Your task to perform on an android device: open app "Skype" (install if not already installed) Image 0: 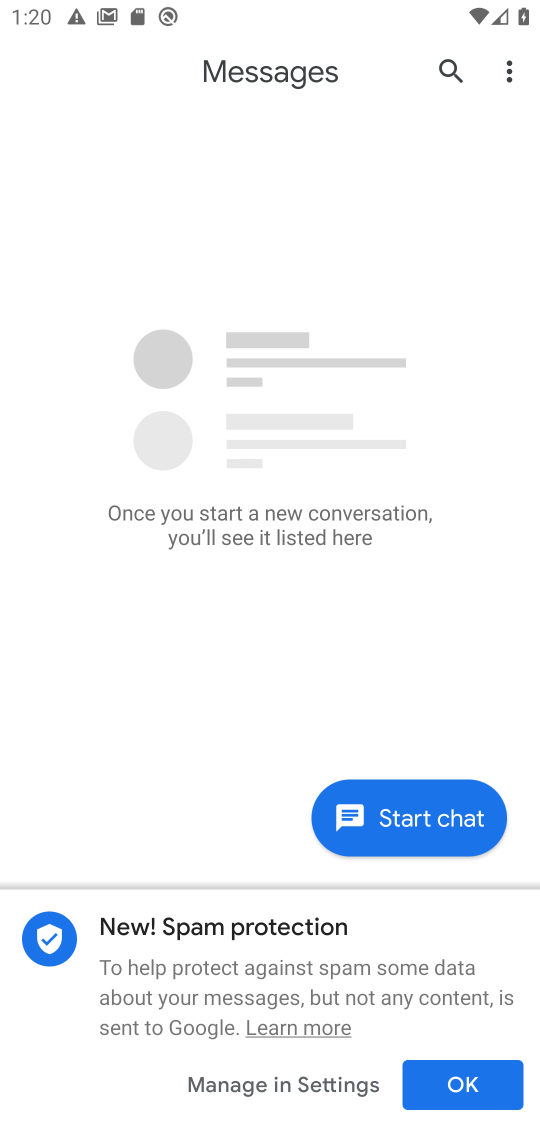
Step 0: press home button
Your task to perform on an android device: open app "Skype" (install if not already installed) Image 1: 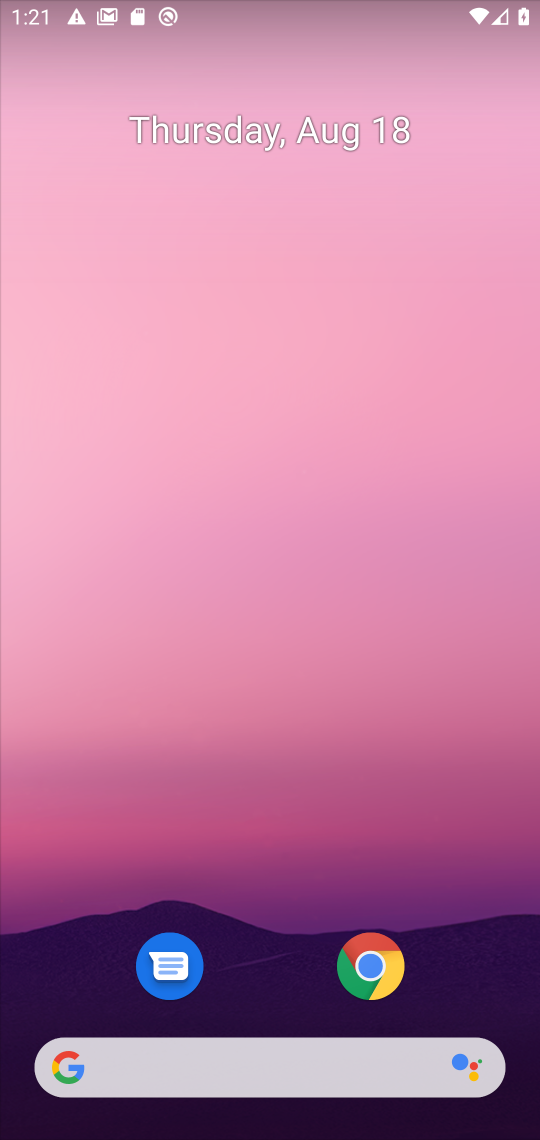
Step 1: drag from (286, 967) to (462, 284)
Your task to perform on an android device: open app "Skype" (install if not already installed) Image 2: 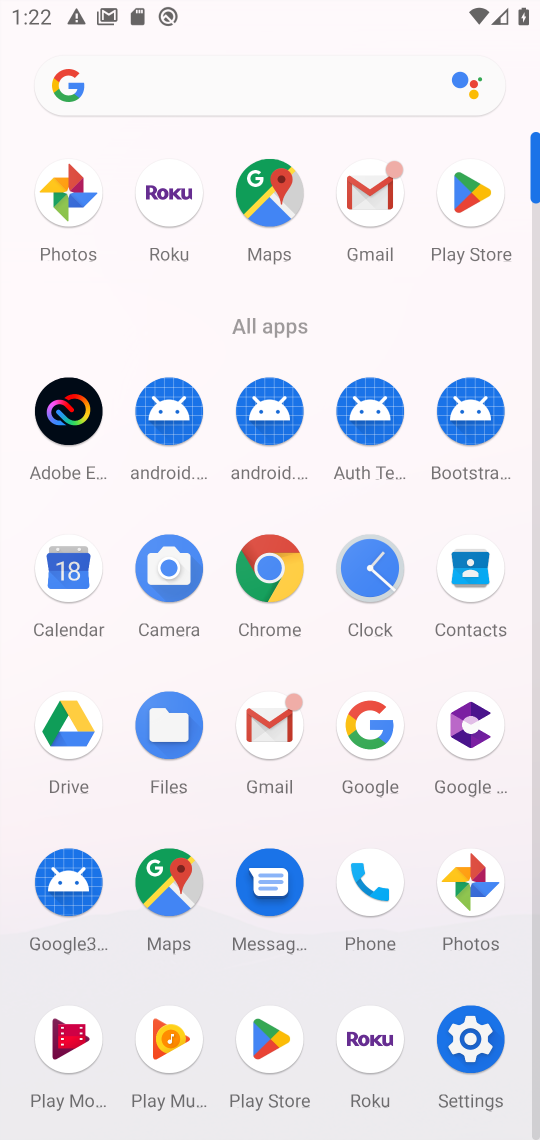
Step 2: click (460, 229)
Your task to perform on an android device: open app "Skype" (install if not already installed) Image 3: 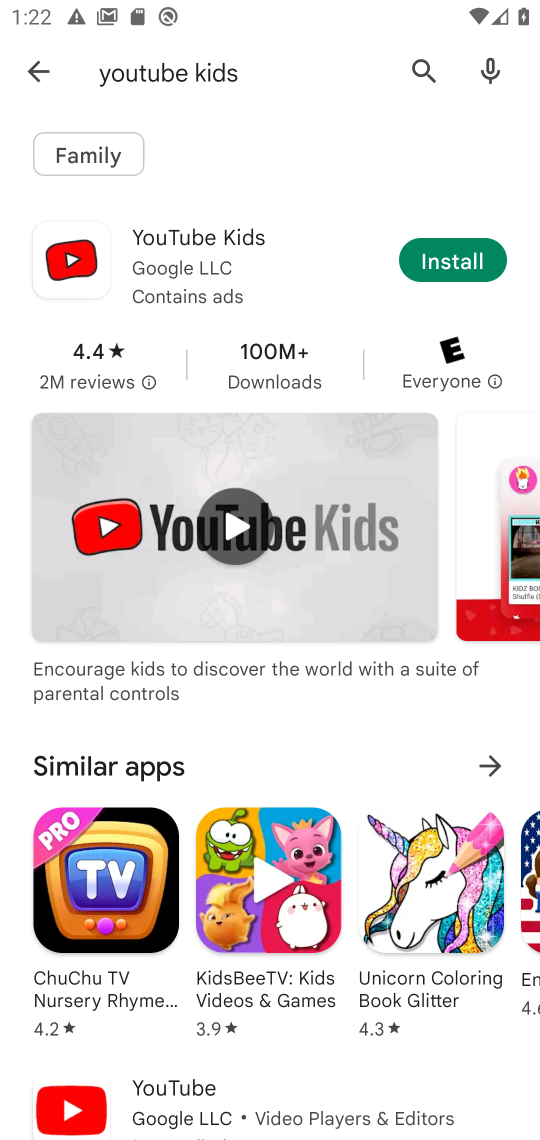
Step 3: click (39, 61)
Your task to perform on an android device: open app "Skype" (install if not already installed) Image 4: 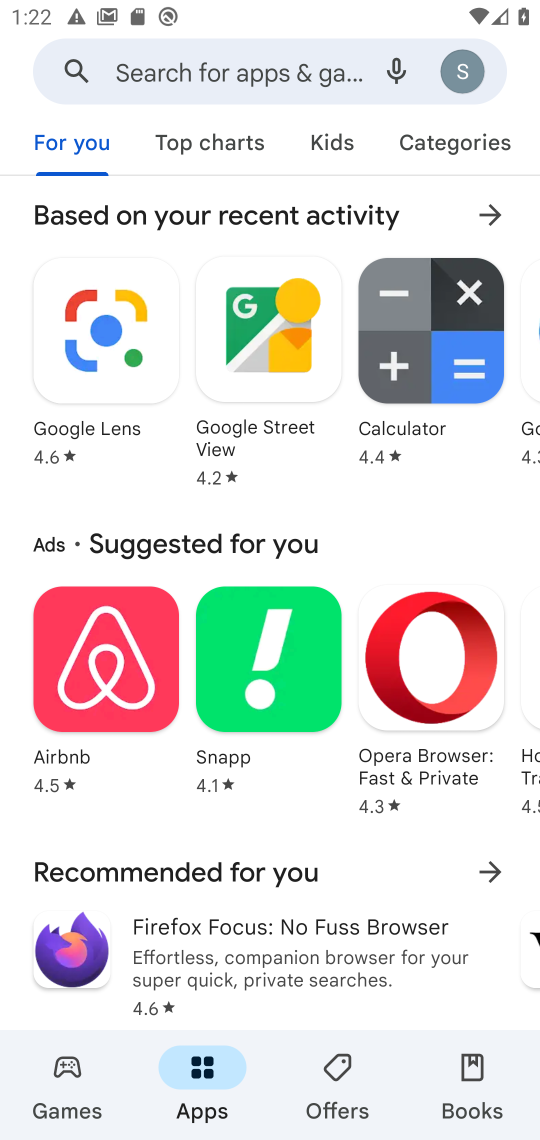
Step 4: click (214, 57)
Your task to perform on an android device: open app "Skype" (install if not already installed) Image 5: 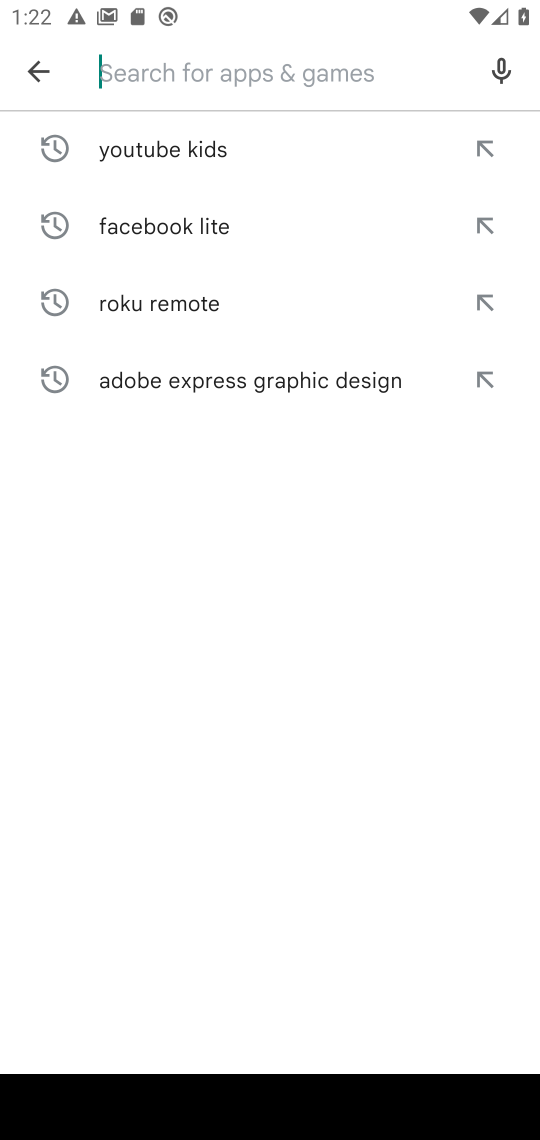
Step 5: type "Skype"
Your task to perform on an android device: open app "Skype" (install if not already installed) Image 6: 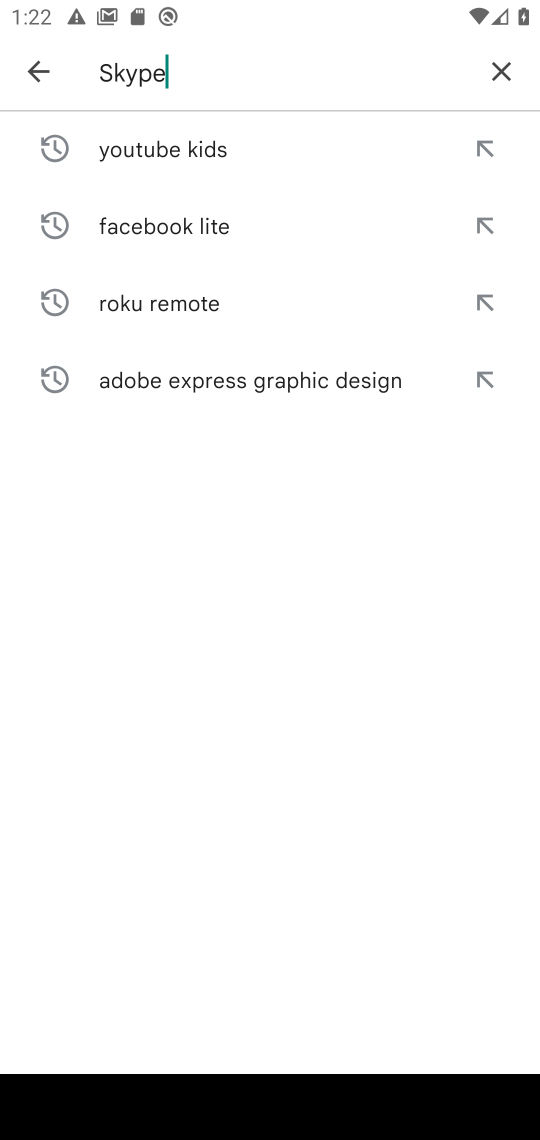
Step 6: type ""
Your task to perform on an android device: open app "Skype" (install if not already installed) Image 7: 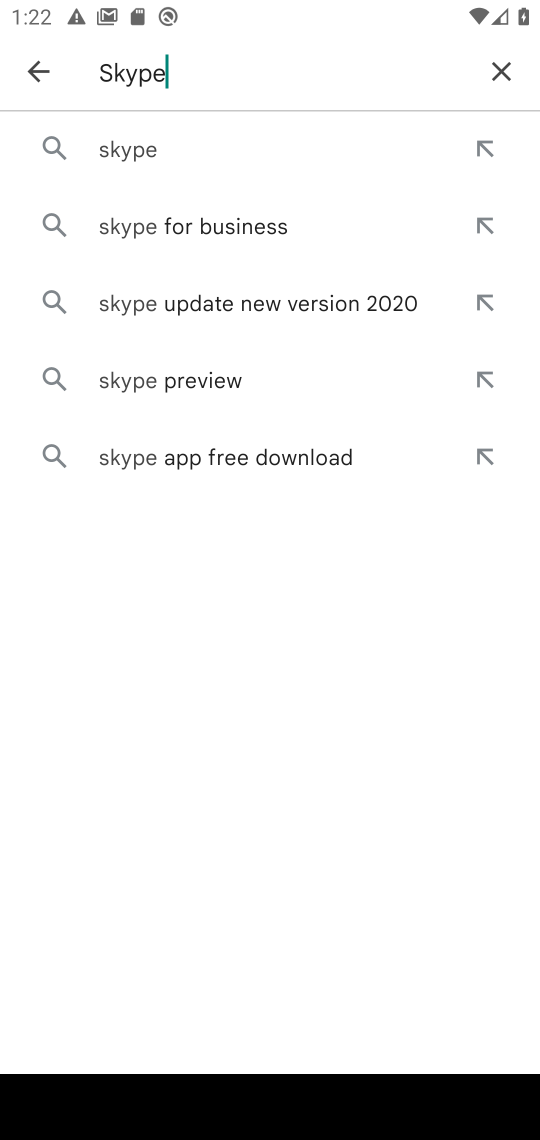
Step 7: click (146, 161)
Your task to perform on an android device: open app "Skype" (install if not already installed) Image 8: 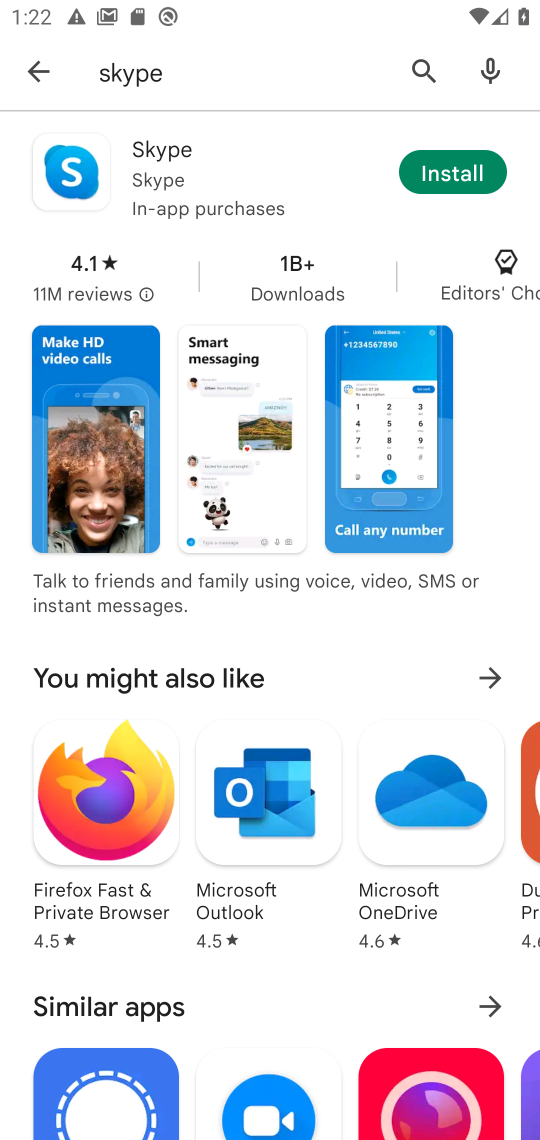
Step 8: click (443, 173)
Your task to perform on an android device: open app "Skype" (install if not already installed) Image 9: 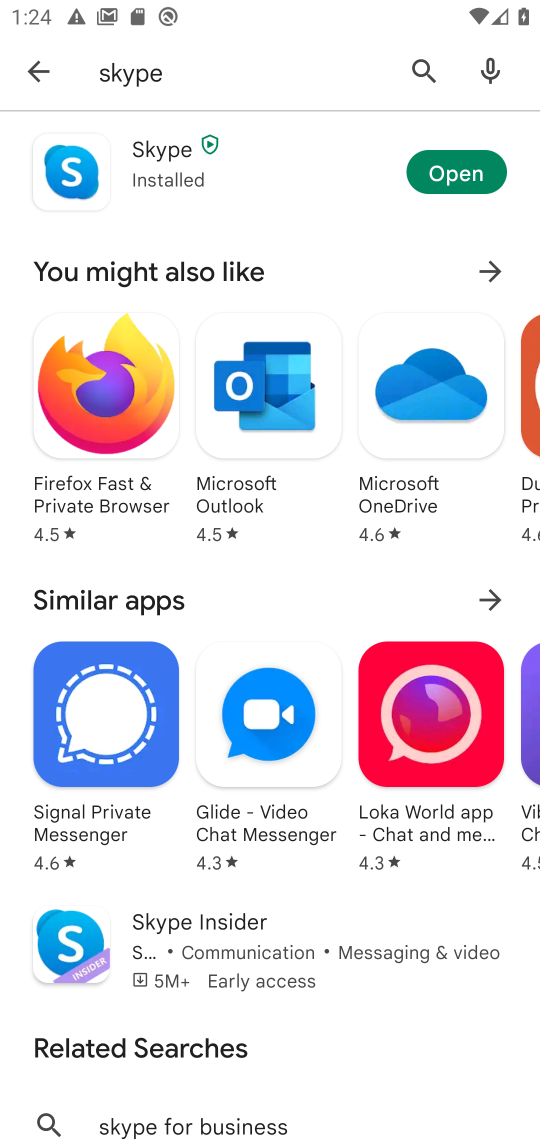
Step 9: click (451, 167)
Your task to perform on an android device: open app "Skype" (install if not already installed) Image 10: 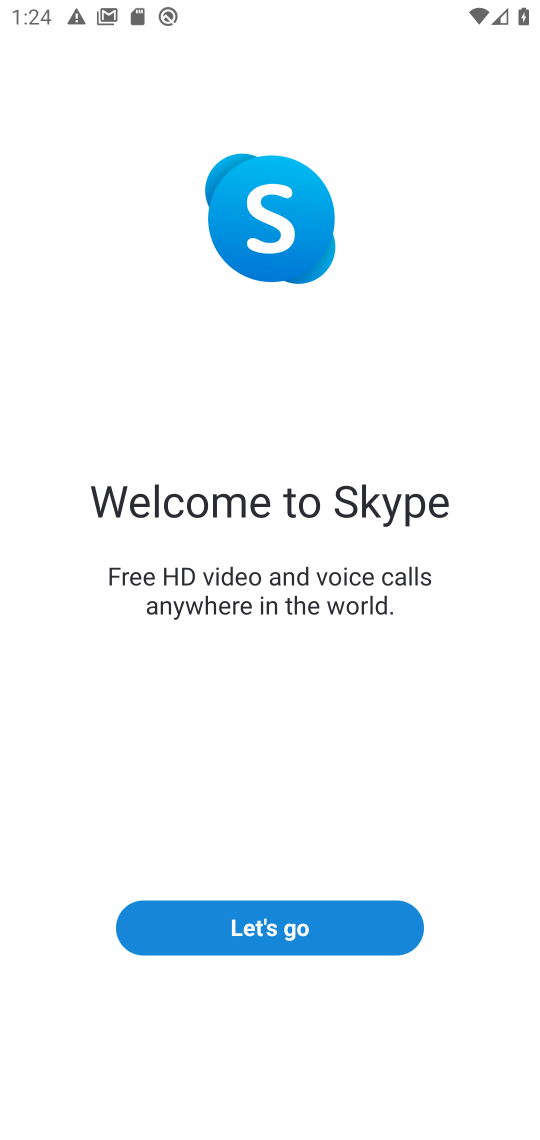
Step 10: task complete